Your task to perform on an android device: Open calendar and show me the first week of next month Image 0: 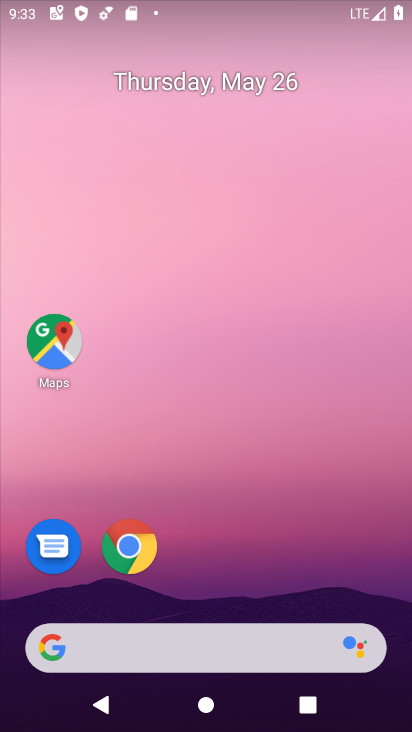
Step 0: drag from (287, 597) to (293, 173)
Your task to perform on an android device: Open calendar and show me the first week of next month Image 1: 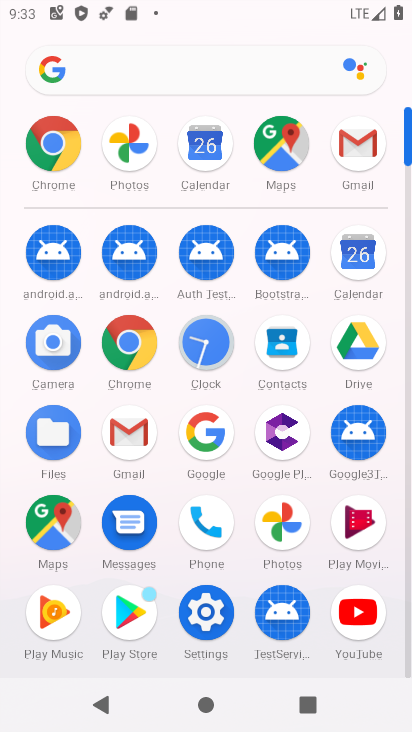
Step 1: click (363, 262)
Your task to perform on an android device: Open calendar and show me the first week of next month Image 2: 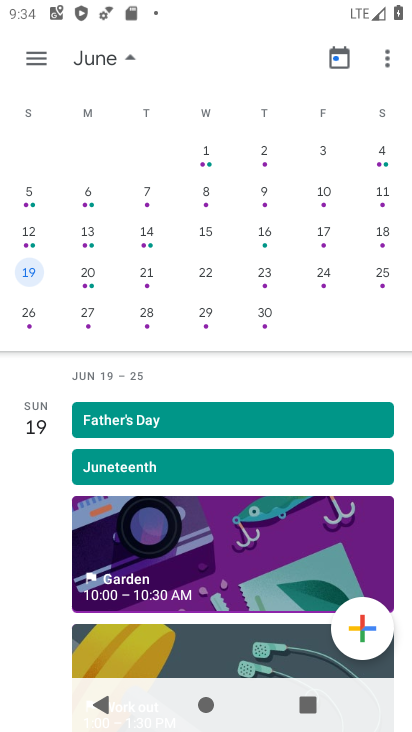
Step 2: click (210, 150)
Your task to perform on an android device: Open calendar and show me the first week of next month Image 3: 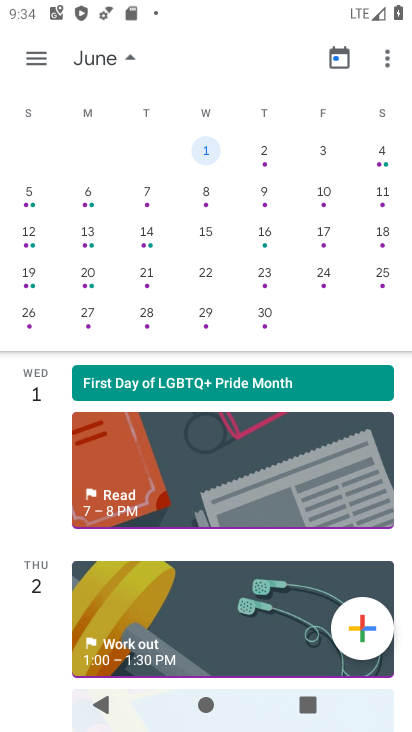
Step 3: task complete